Your task to perform on an android device: turn off javascript in the chrome app Image 0: 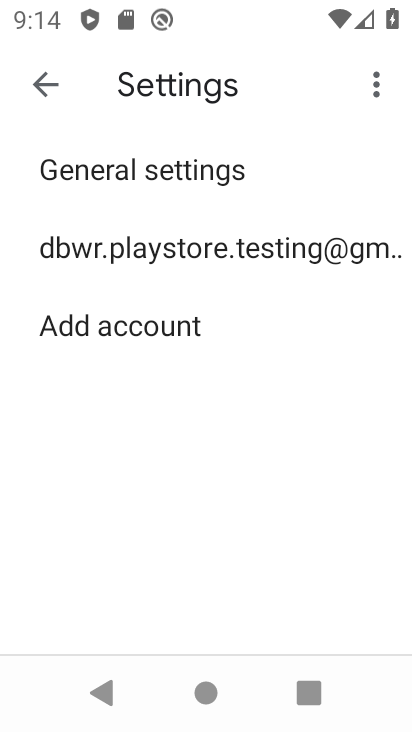
Step 0: click (55, 81)
Your task to perform on an android device: turn off javascript in the chrome app Image 1: 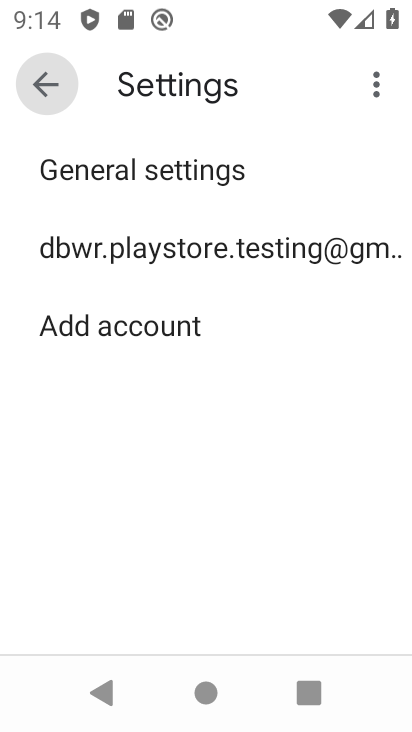
Step 1: click (55, 81)
Your task to perform on an android device: turn off javascript in the chrome app Image 2: 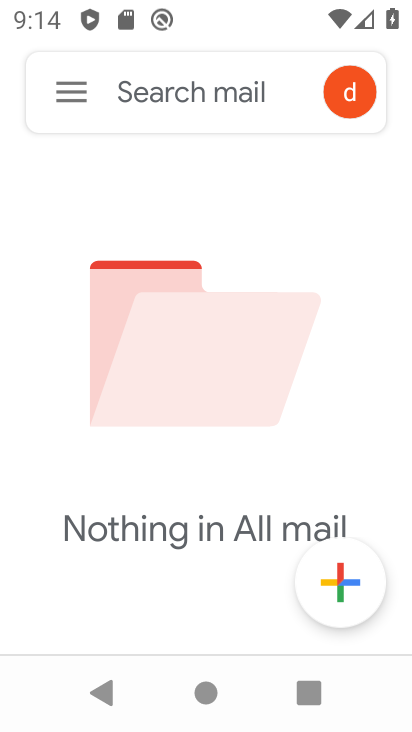
Step 2: press home button
Your task to perform on an android device: turn off javascript in the chrome app Image 3: 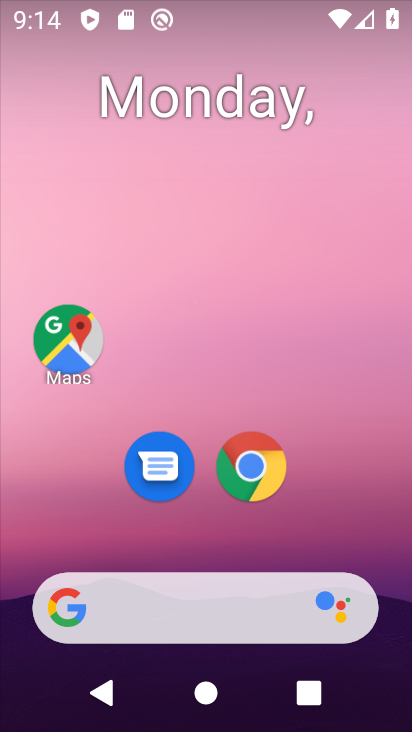
Step 3: drag from (367, 665) to (228, 75)
Your task to perform on an android device: turn off javascript in the chrome app Image 4: 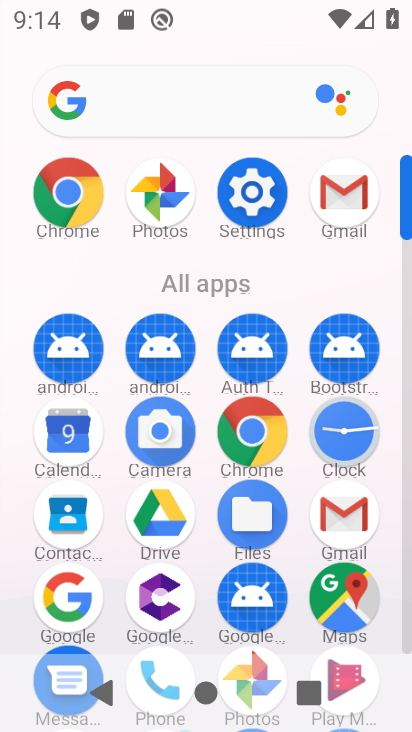
Step 4: click (69, 204)
Your task to perform on an android device: turn off javascript in the chrome app Image 5: 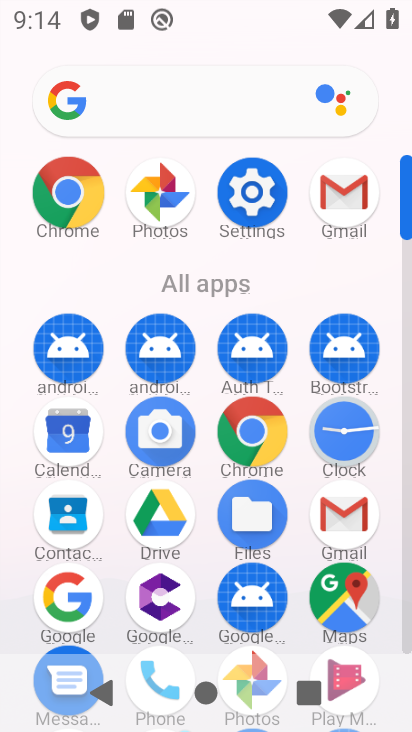
Step 5: click (74, 204)
Your task to perform on an android device: turn off javascript in the chrome app Image 6: 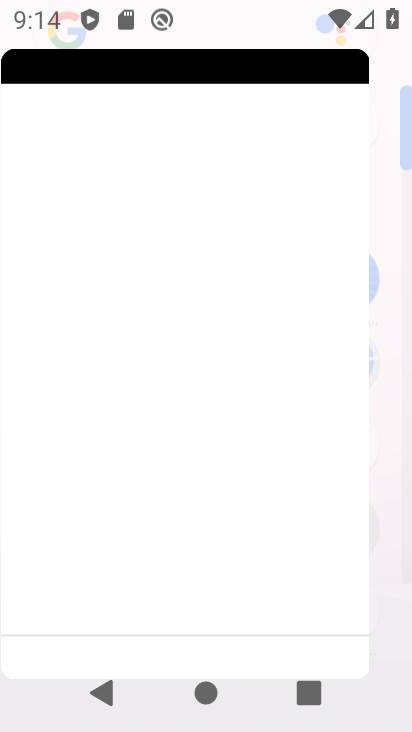
Step 6: click (74, 204)
Your task to perform on an android device: turn off javascript in the chrome app Image 7: 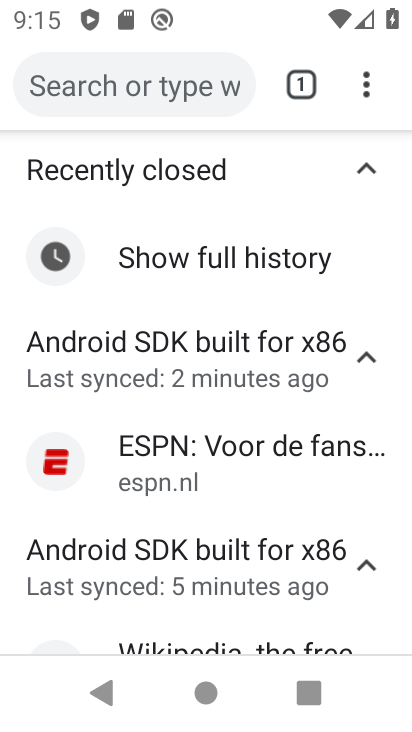
Step 7: drag from (363, 86) to (96, 521)
Your task to perform on an android device: turn off javascript in the chrome app Image 8: 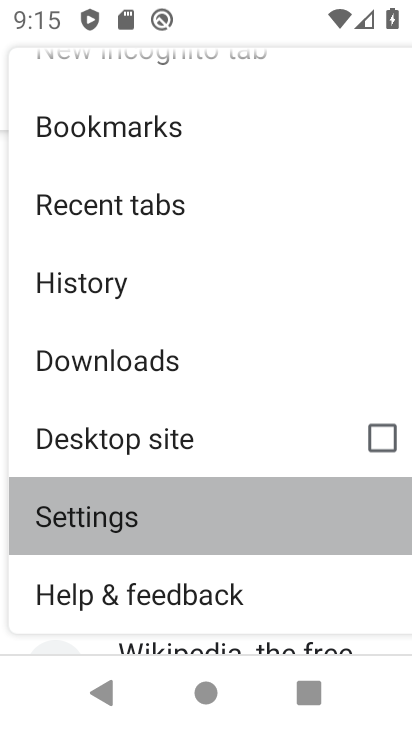
Step 8: click (96, 520)
Your task to perform on an android device: turn off javascript in the chrome app Image 9: 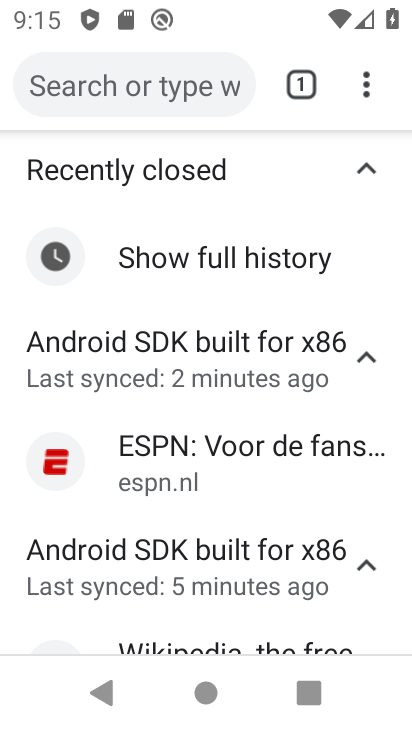
Step 9: click (96, 505)
Your task to perform on an android device: turn off javascript in the chrome app Image 10: 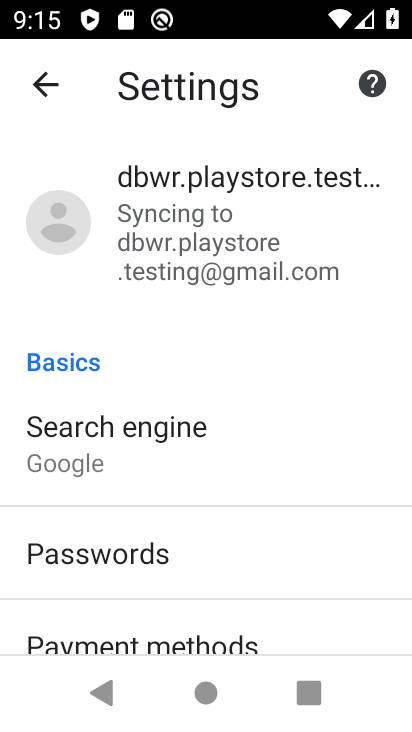
Step 10: drag from (205, 554) to (227, 232)
Your task to perform on an android device: turn off javascript in the chrome app Image 11: 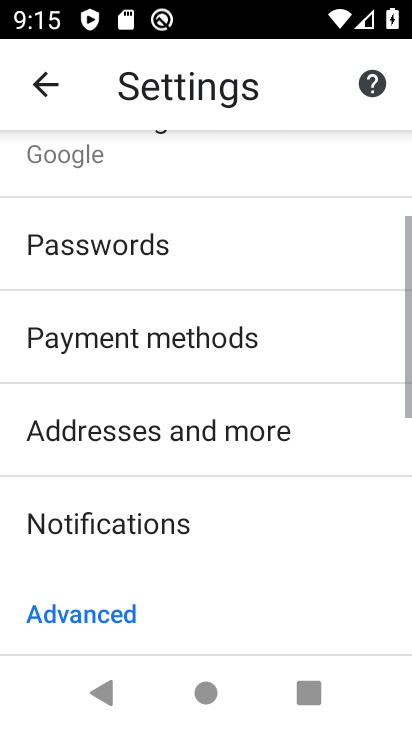
Step 11: drag from (226, 487) to (203, 249)
Your task to perform on an android device: turn off javascript in the chrome app Image 12: 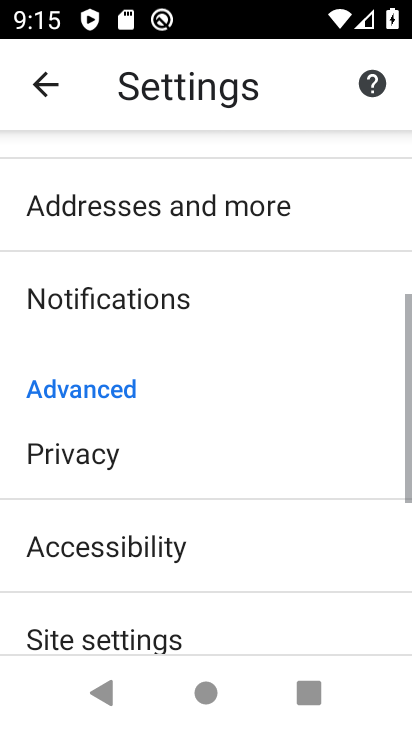
Step 12: drag from (235, 411) to (237, 272)
Your task to perform on an android device: turn off javascript in the chrome app Image 13: 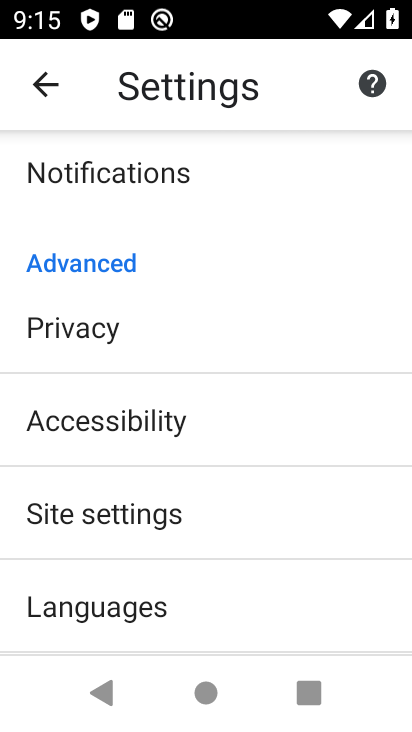
Step 13: click (90, 520)
Your task to perform on an android device: turn off javascript in the chrome app Image 14: 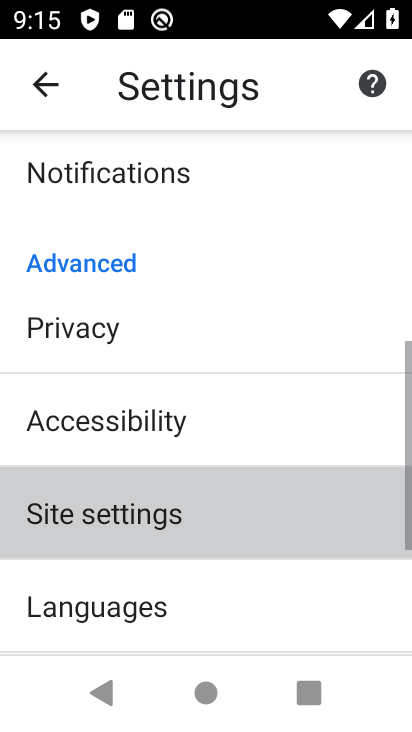
Step 14: click (89, 514)
Your task to perform on an android device: turn off javascript in the chrome app Image 15: 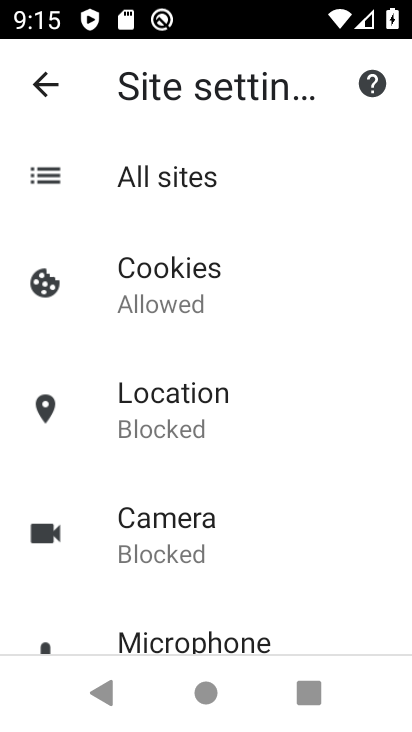
Step 15: drag from (225, 519) to (181, 264)
Your task to perform on an android device: turn off javascript in the chrome app Image 16: 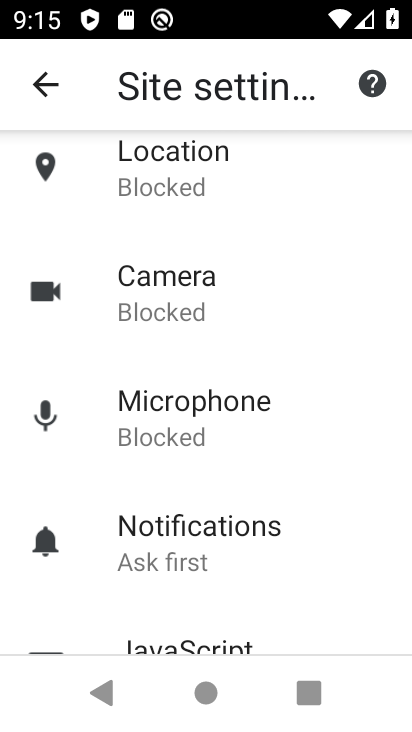
Step 16: drag from (242, 538) to (202, 201)
Your task to perform on an android device: turn off javascript in the chrome app Image 17: 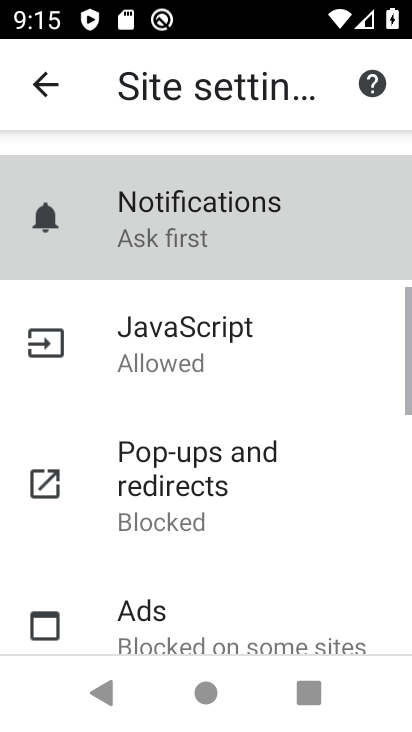
Step 17: drag from (242, 235) to (241, 171)
Your task to perform on an android device: turn off javascript in the chrome app Image 18: 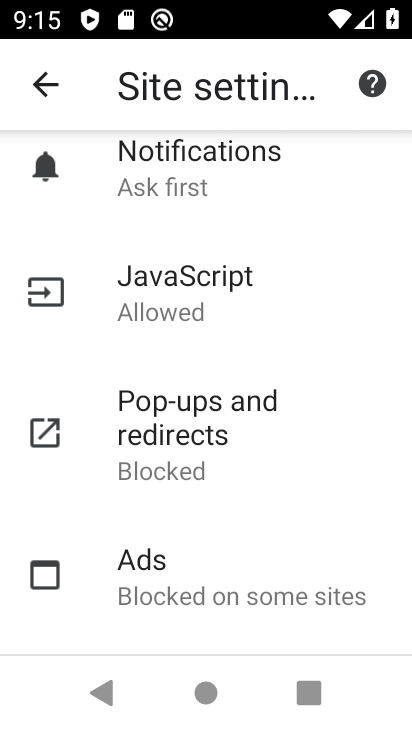
Step 18: click (183, 291)
Your task to perform on an android device: turn off javascript in the chrome app Image 19: 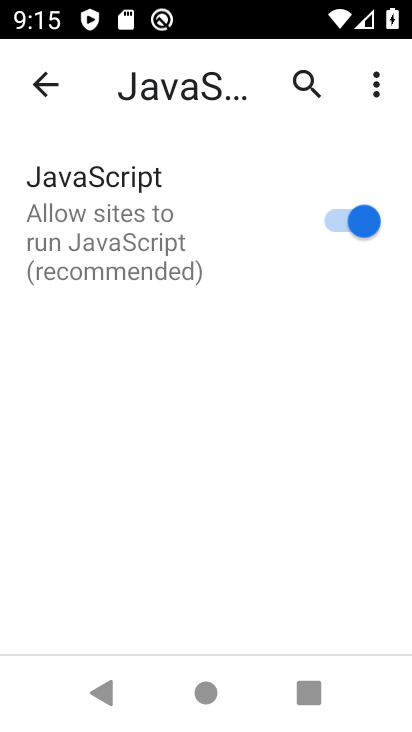
Step 19: click (360, 224)
Your task to perform on an android device: turn off javascript in the chrome app Image 20: 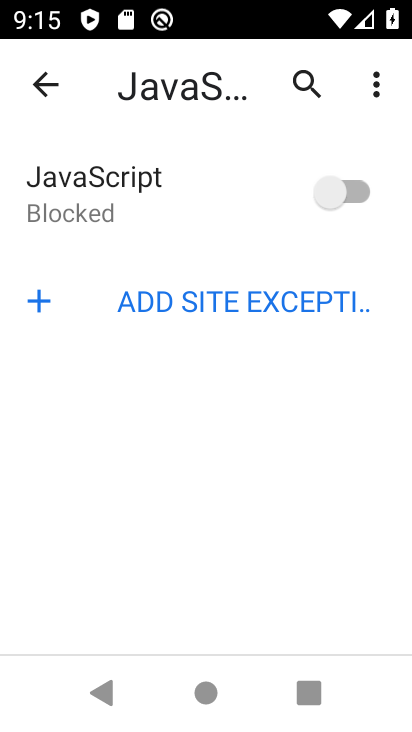
Step 20: task complete